Your task to perform on an android device: change the clock display to analog Image 0: 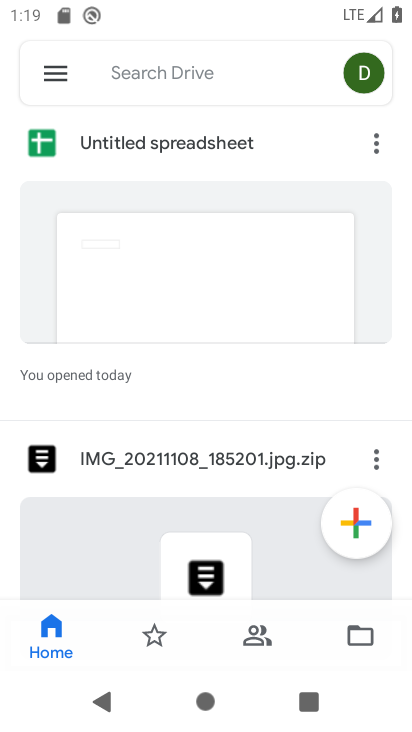
Step 0: press home button
Your task to perform on an android device: change the clock display to analog Image 1: 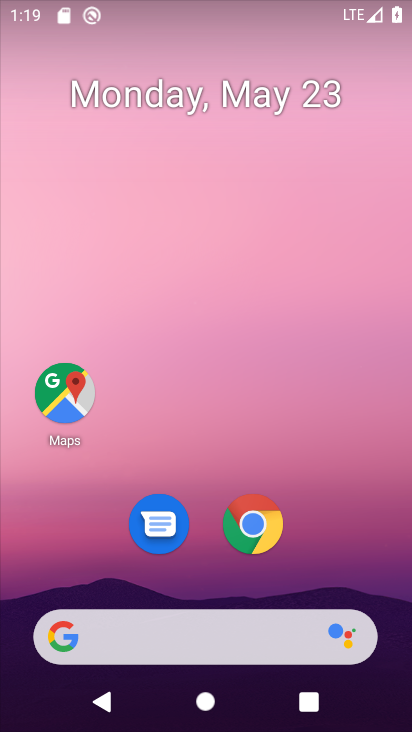
Step 1: drag from (202, 446) to (242, 43)
Your task to perform on an android device: change the clock display to analog Image 2: 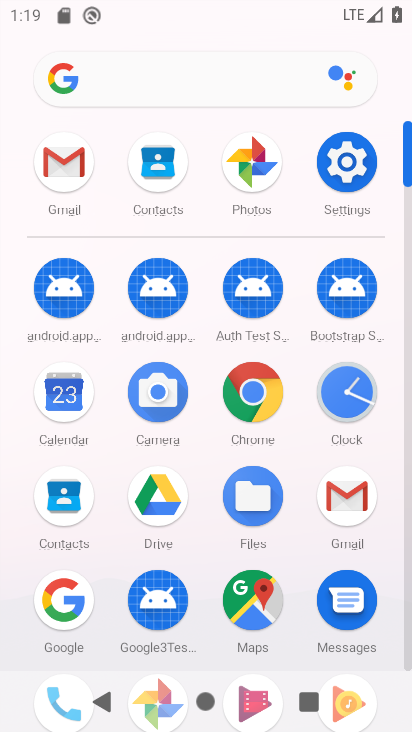
Step 2: click (345, 382)
Your task to perform on an android device: change the clock display to analog Image 3: 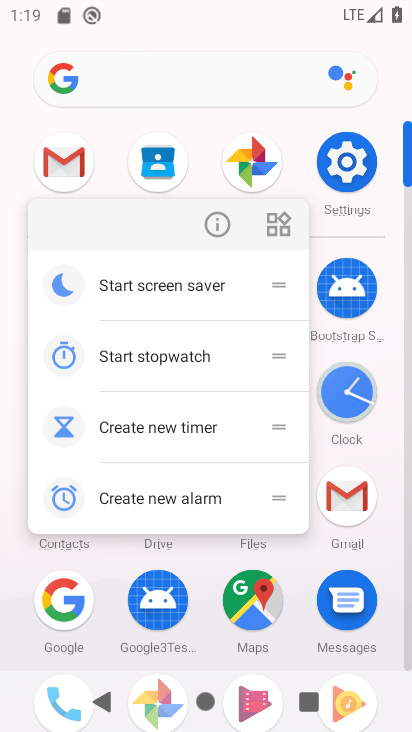
Step 3: click (345, 382)
Your task to perform on an android device: change the clock display to analog Image 4: 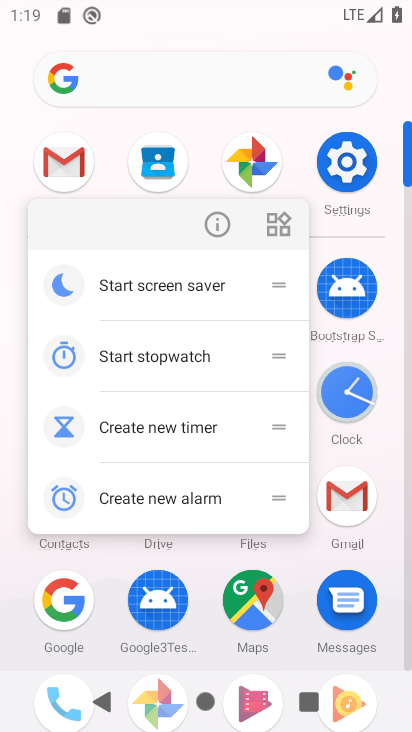
Step 4: click (353, 392)
Your task to perform on an android device: change the clock display to analog Image 5: 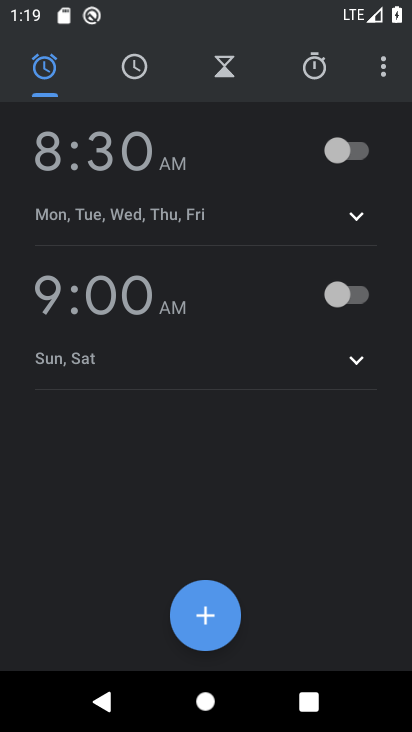
Step 5: click (383, 66)
Your task to perform on an android device: change the clock display to analog Image 6: 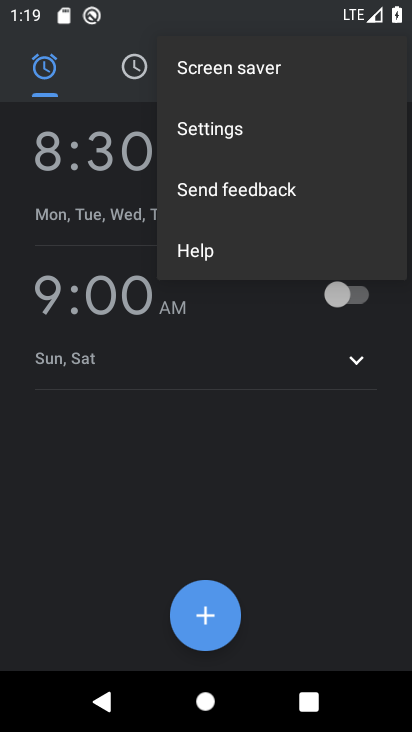
Step 6: click (323, 125)
Your task to perform on an android device: change the clock display to analog Image 7: 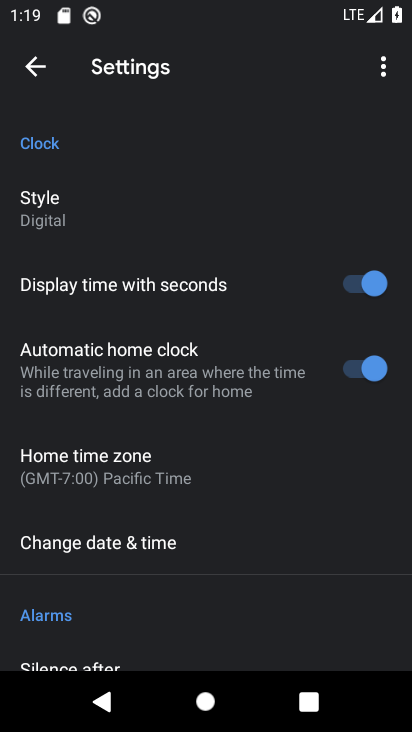
Step 7: click (114, 219)
Your task to perform on an android device: change the clock display to analog Image 8: 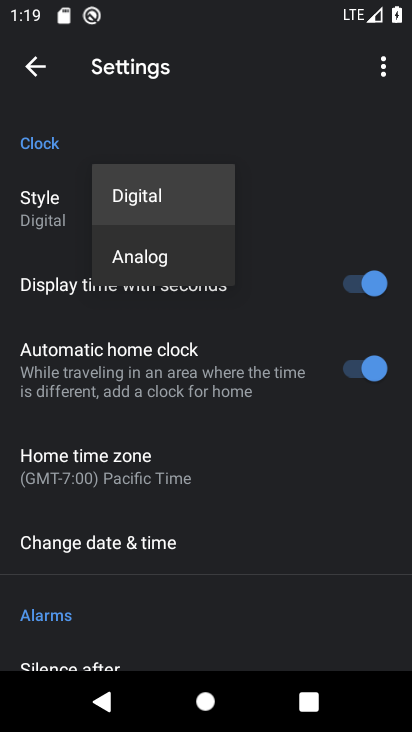
Step 8: click (132, 256)
Your task to perform on an android device: change the clock display to analog Image 9: 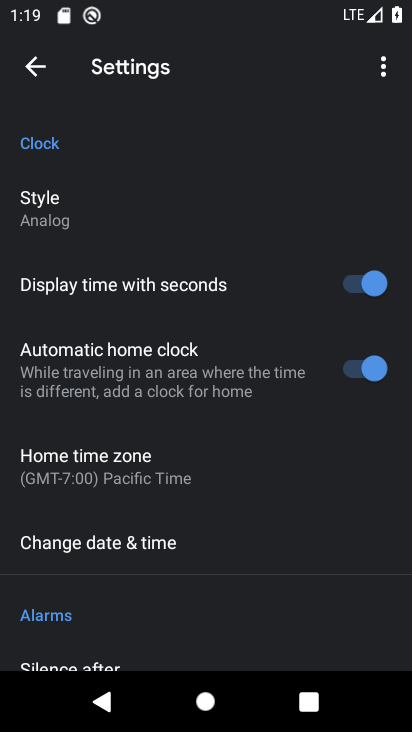
Step 9: click (29, 67)
Your task to perform on an android device: change the clock display to analog Image 10: 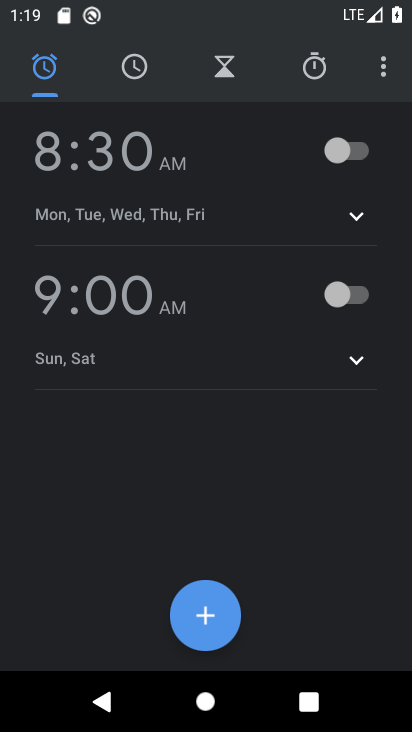
Step 10: task complete